Your task to perform on an android device: Open settings Image 0: 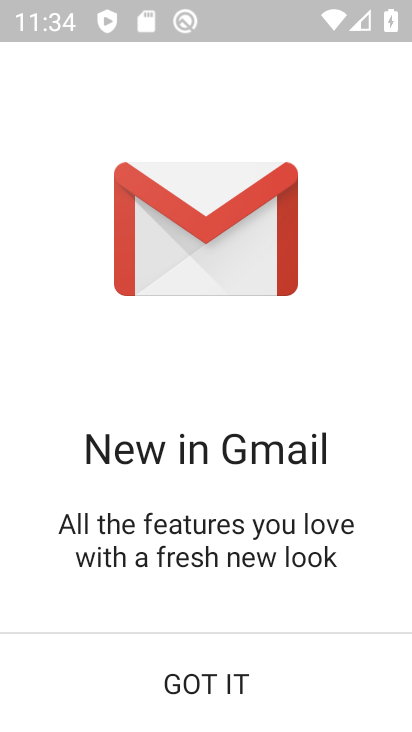
Step 0: press home button
Your task to perform on an android device: Open settings Image 1: 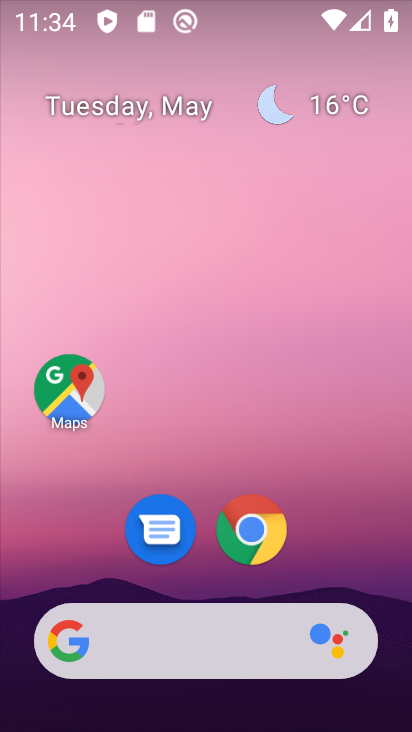
Step 1: drag from (51, 600) to (188, 129)
Your task to perform on an android device: Open settings Image 2: 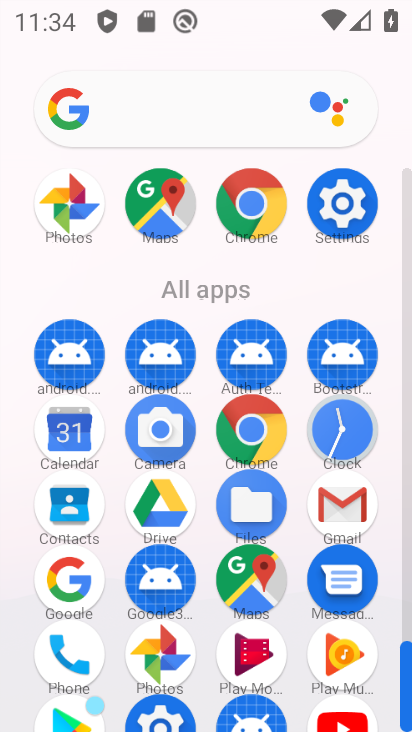
Step 2: drag from (160, 654) to (251, 275)
Your task to perform on an android device: Open settings Image 3: 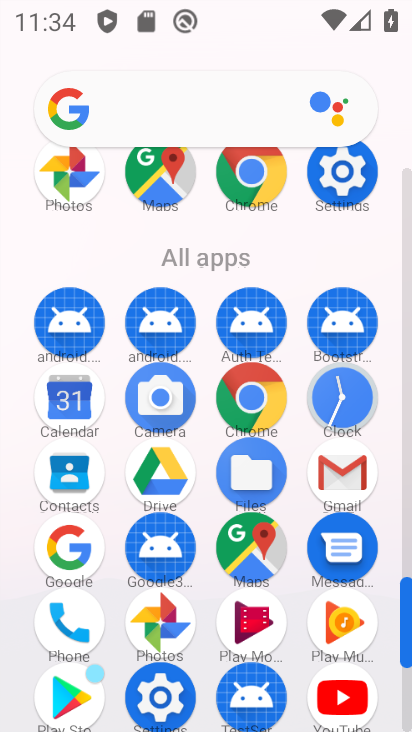
Step 3: click (161, 706)
Your task to perform on an android device: Open settings Image 4: 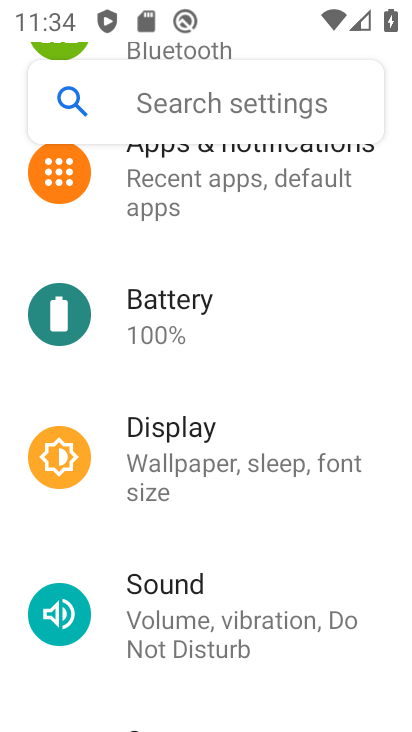
Step 4: task complete